Your task to perform on an android device: When is my next meeting? Image 0: 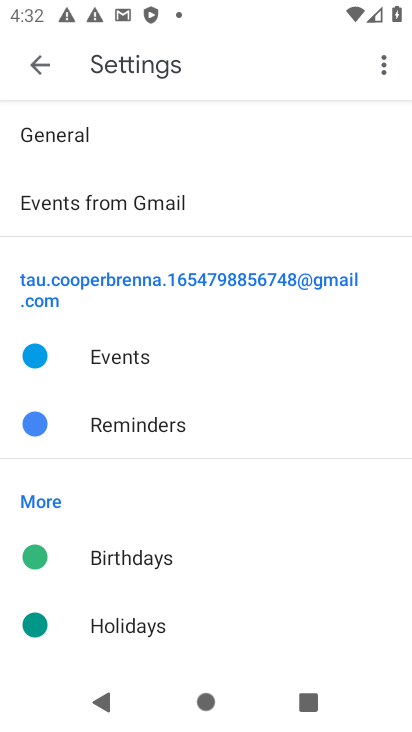
Step 0: drag from (197, 579) to (346, 290)
Your task to perform on an android device: When is my next meeting? Image 1: 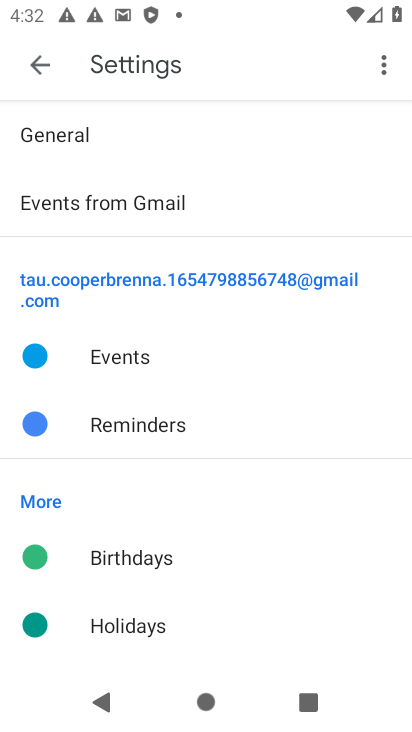
Step 1: press home button
Your task to perform on an android device: When is my next meeting? Image 2: 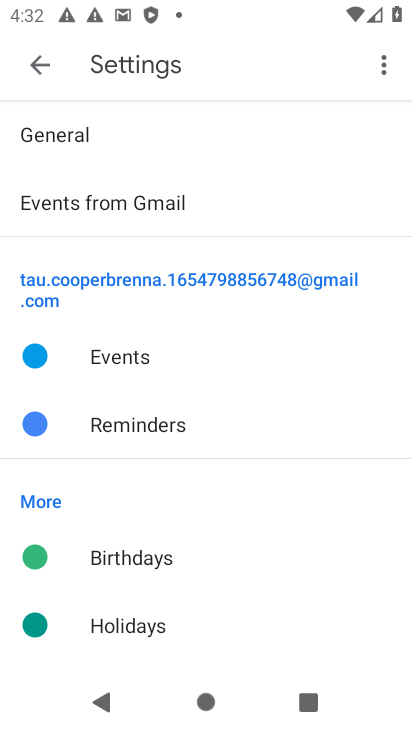
Step 2: press home button
Your task to perform on an android device: When is my next meeting? Image 3: 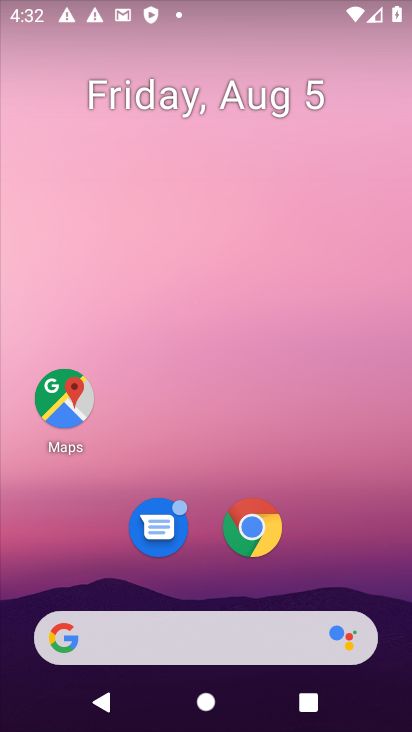
Step 3: drag from (194, 354) to (213, 268)
Your task to perform on an android device: When is my next meeting? Image 4: 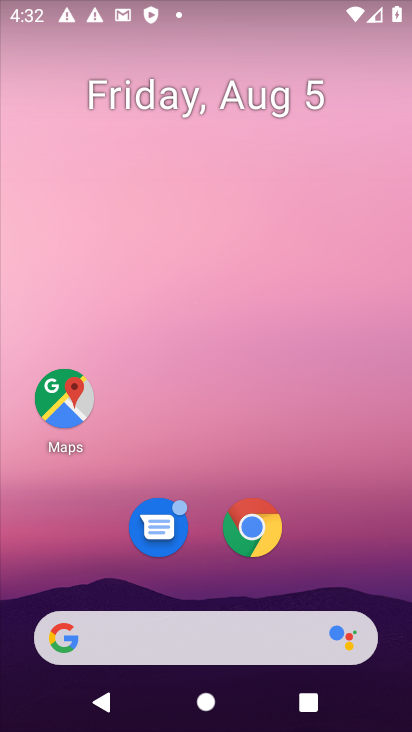
Step 4: drag from (192, 345) to (208, 194)
Your task to perform on an android device: When is my next meeting? Image 5: 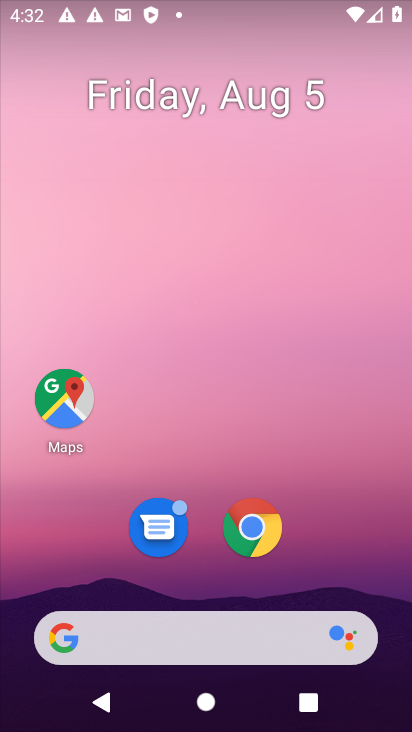
Step 5: drag from (221, 503) to (217, 157)
Your task to perform on an android device: When is my next meeting? Image 6: 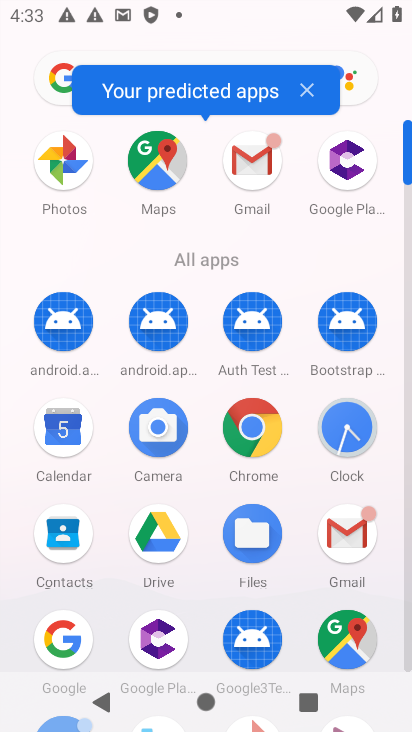
Step 6: drag from (212, 618) to (188, 225)
Your task to perform on an android device: When is my next meeting? Image 7: 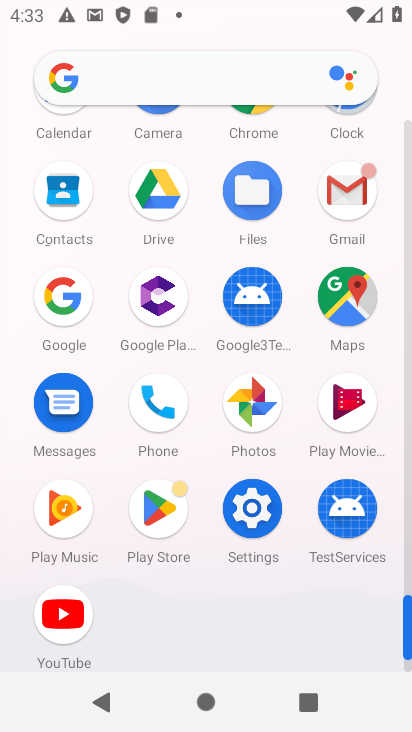
Step 7: drag from (198, 556) to (193, 272)
Your task to perform on an android device: When is my next meeting? Image 8: 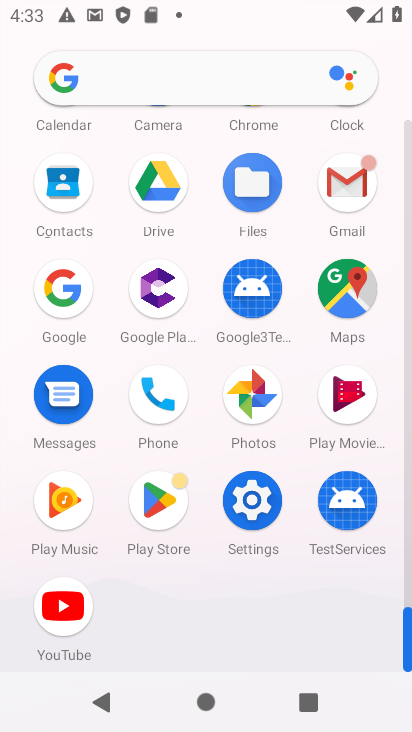
Step 8: drag from (208, 223) to (234, 576)
Your task to perform on an android device: When is my next meeting? Image 9: 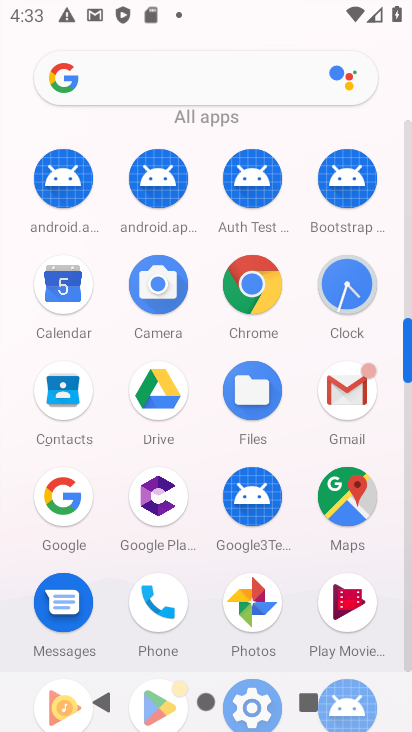
Step 9: drag from (210, 570) to (246, 350)
Your task to perform on an android device: When is my next meeting? Image 10: 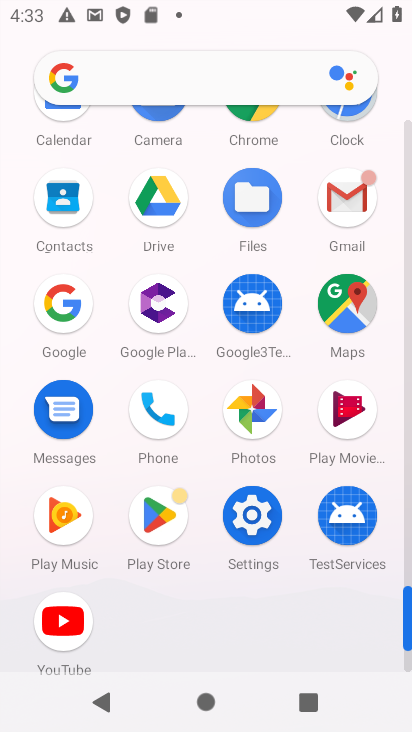
Step 10: drag from (210, 223) to (248, 631)
Your task to perform on an android device: When is my next meeting? Image 11: 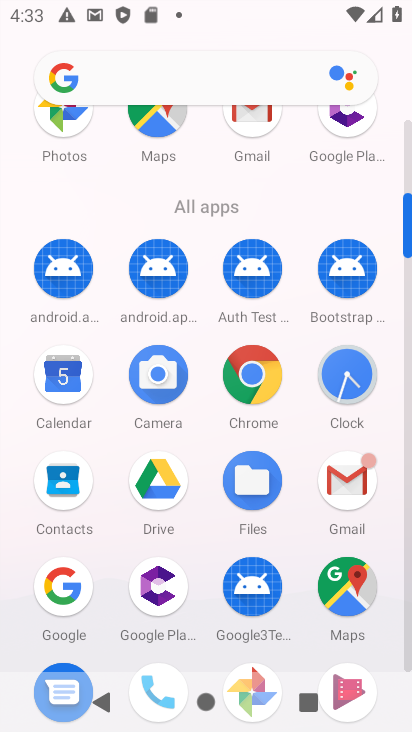
Step 11: drag from (202, 652) to (230, 260)
Your task to perform on an android device: When is my next meeting? Image 12: 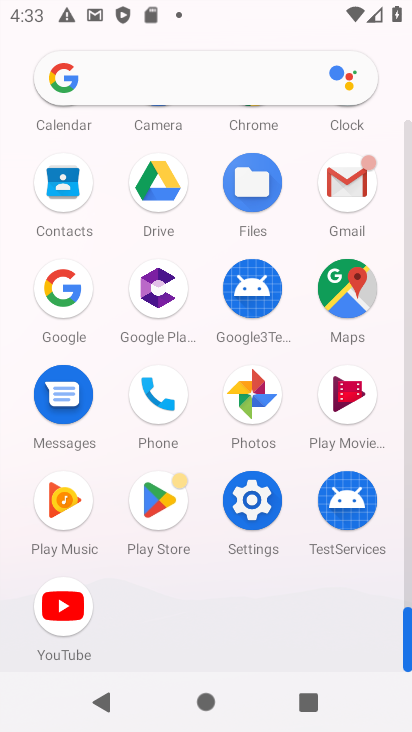
Step 12: drag from (206, 205) to (205, 512)
Your task to perform on an android device: When is my next meeting? Image 13: 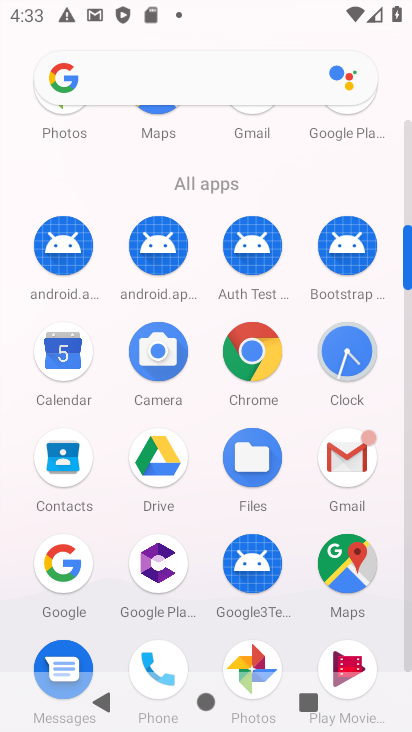
Step 13: click (57, 361)
Your task to perform on an android device: When is my next meeting? Image 14: 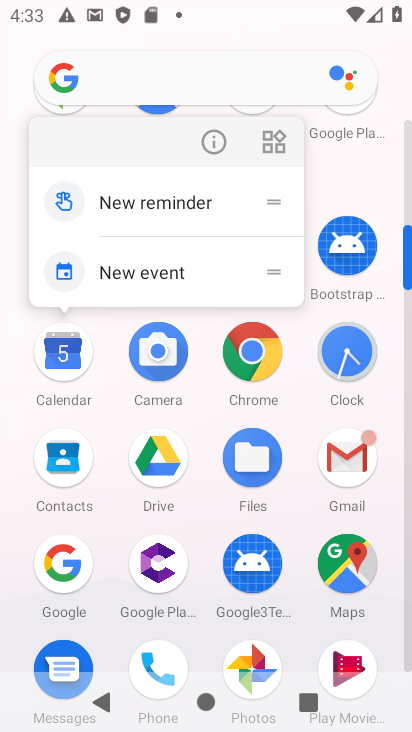
Step 14: click (222, 134)
Your task to perform on an android device: When is my next meeting? Image 15: 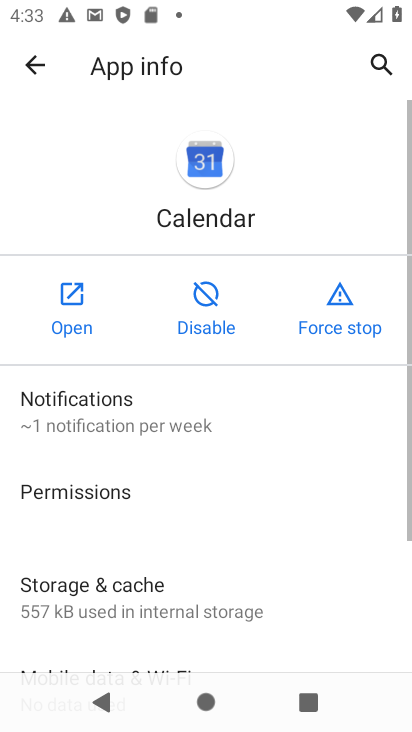
Step 15: click (56, 307)
Your task to perform on an android device: When is my next meeting? Image 16: 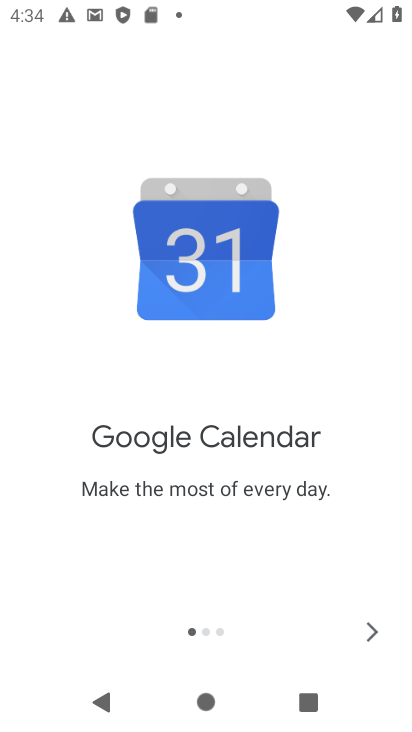
Step 16: click (379, 628)
Your task to perform on an android device: When is my next meeting? Image 17: 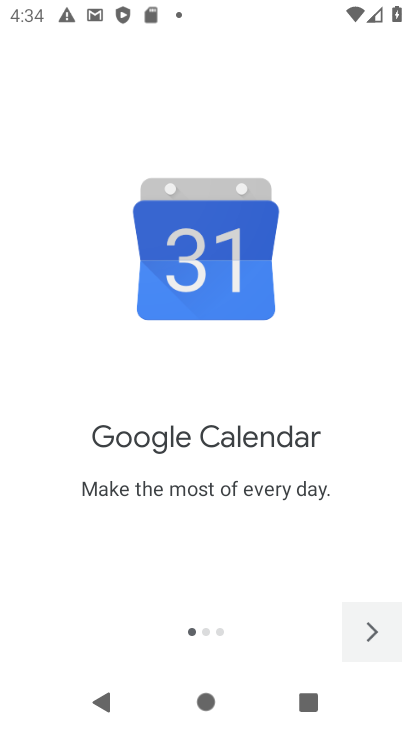
Step 17: click (372, 626)
Your task to perform on an android device: When is my next meeting? Image 18: 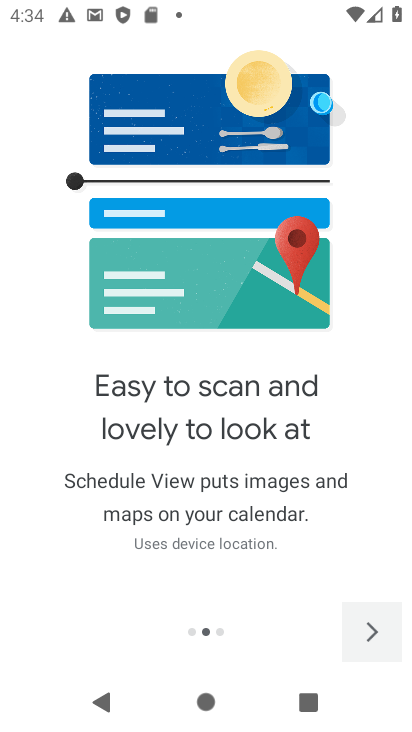
Step 18: click (372, 626)
Your task to perform on an android device: When is my next meeting? Image 19: 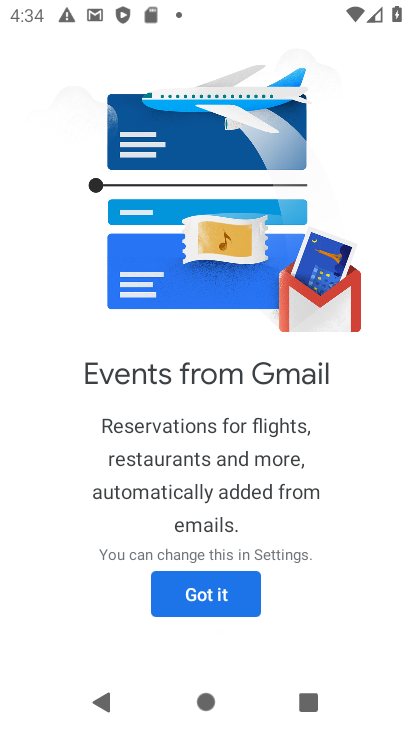
Step 19: click (372, 626)
Your task to perform on an android device: When is my next meeting? Image 20: 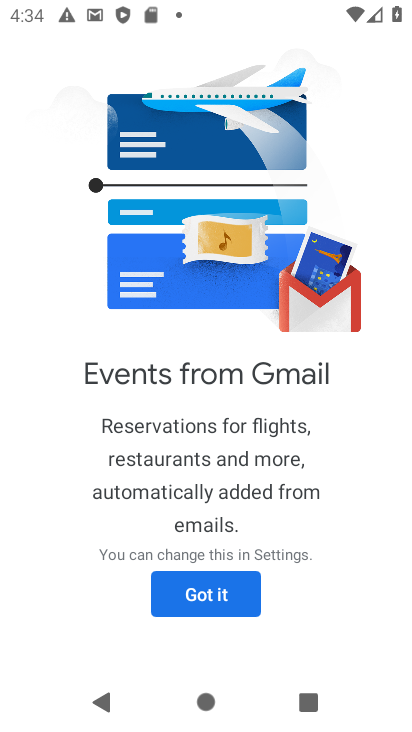
Step 20: click (372, 626)
Your task to perform on an android device: When is my next meeting? Image 21: 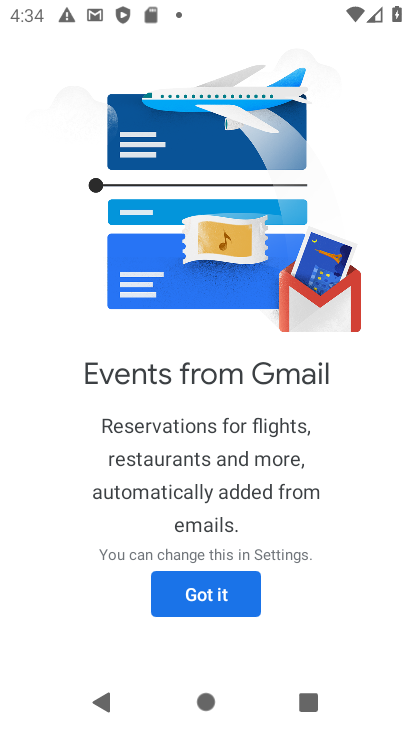
Step 21: click (192, 609)
Your task to perform on an android device: When is my next meeting? Image 22: 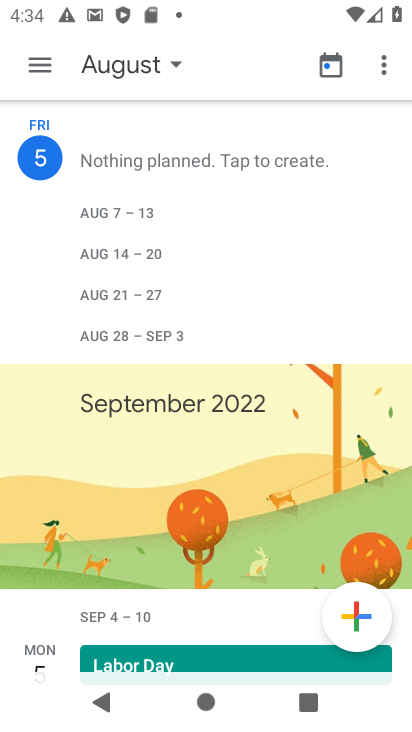
Step 22: click (98, 60)
Your task to perform on an android device: When is my next meeting? Image 23: 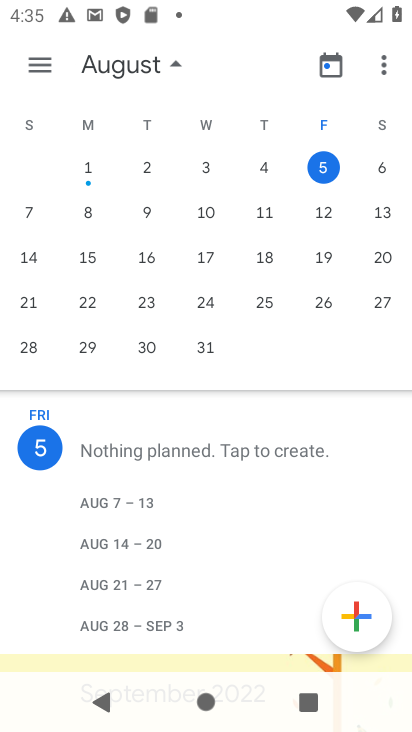
Step 23: click (324, 167)
Your task to perform on an android device: When is my next meeting? Image 24: 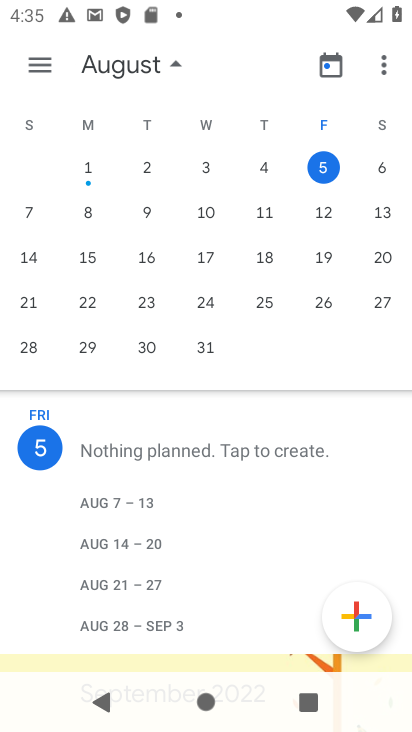
Step 24: task complete